Your task to perform on an android device: turn notification dots off Image 0: 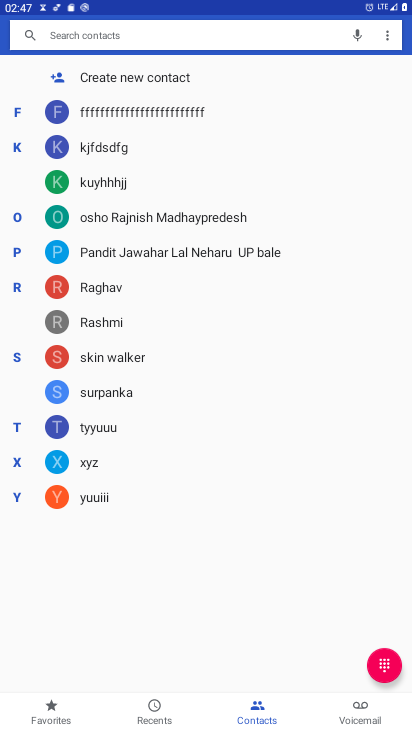
Step 0: press home button
Your task to perform on an android device: turn notification dots off Image 1: 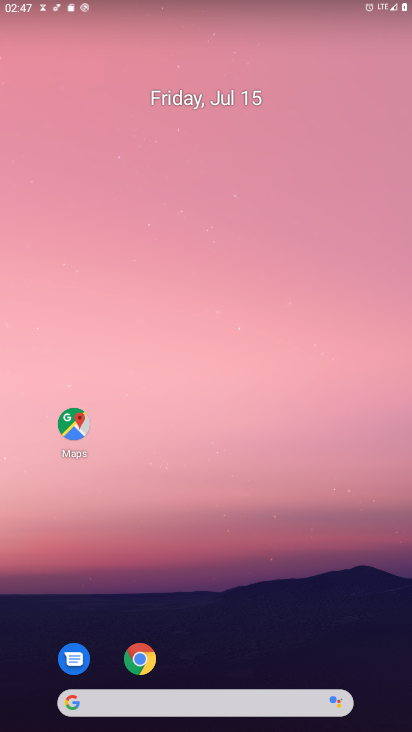
Step 1: drag from (233, 518) to (231, 270)
Your task to perform on an android device: turn notification dots off Image 2: 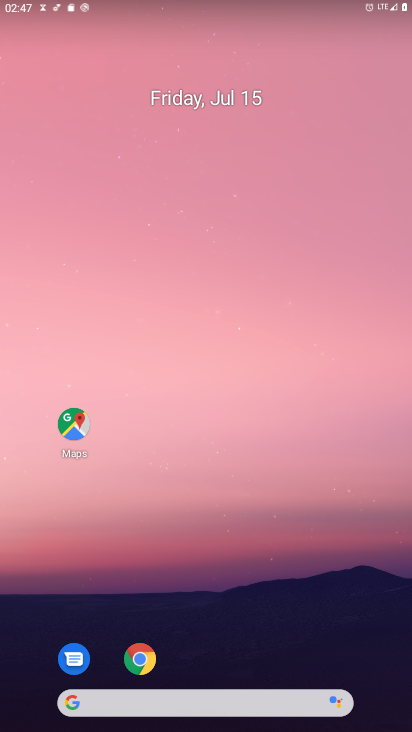
Step 2: drag from (209, 636) to (257, 111)
Your task to perform on an android device: turn notification dots off Image 3: 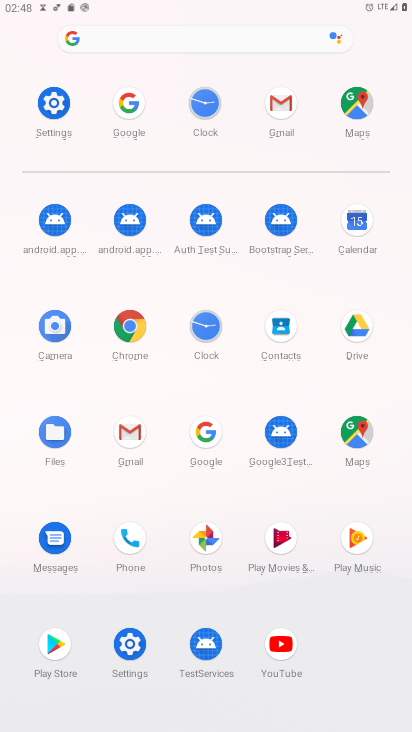
Step 3: click (58, 99)
Your task to perform on an android device: turn notification dots off Image 4: 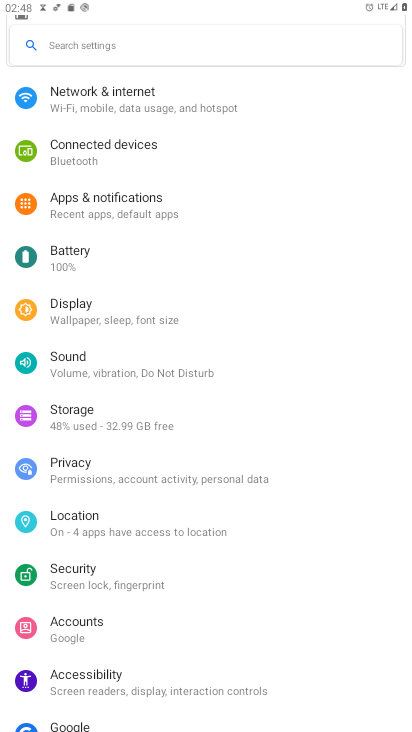
Step 4: drag from (209, 102) to (240, 685)
Your task to perform on an android device: turn notification dots off Image 5: 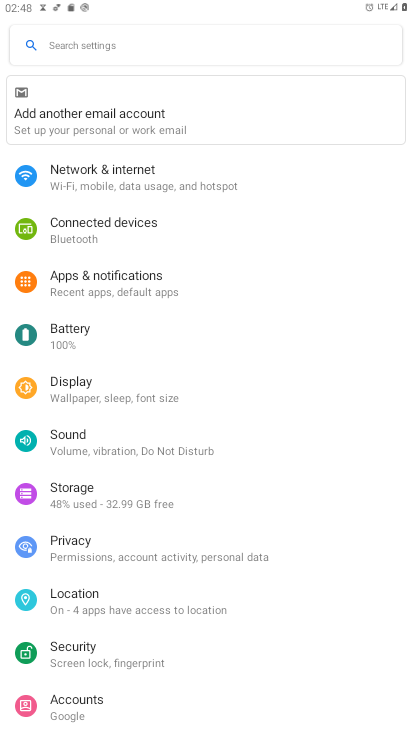
Step 5: click (245, 30)
Your task to perform on an android device: turn notification dots off Image 6: 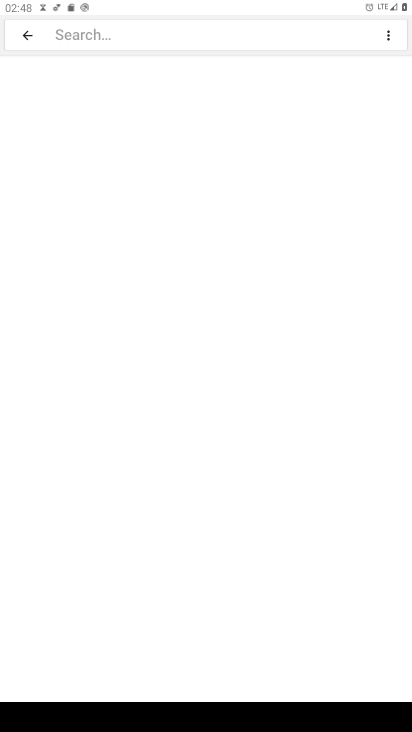
Step 6: type " notification dots  "
Your task to perform on an android device: turn notification dots off Image 7: 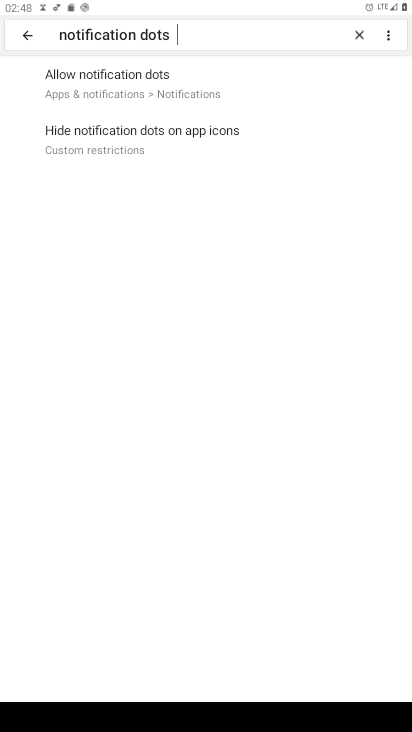
Step 7: click (64, 68)
Your task to perform on an android device: turn notification dots off Image 8: 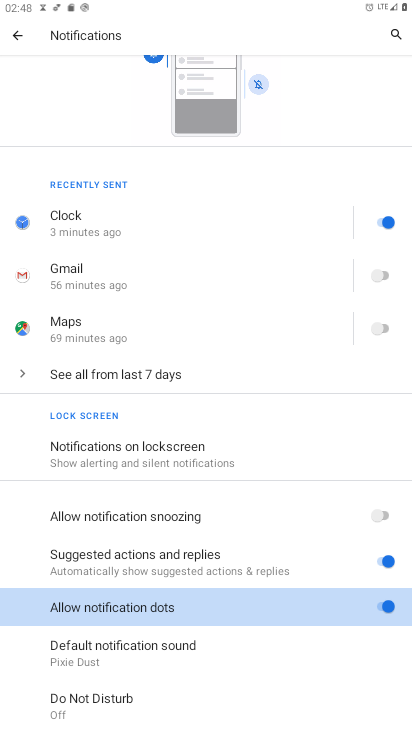
Step 8: click (388, 609)
Your task to perform on an android device: turn notification dots off Image 9: 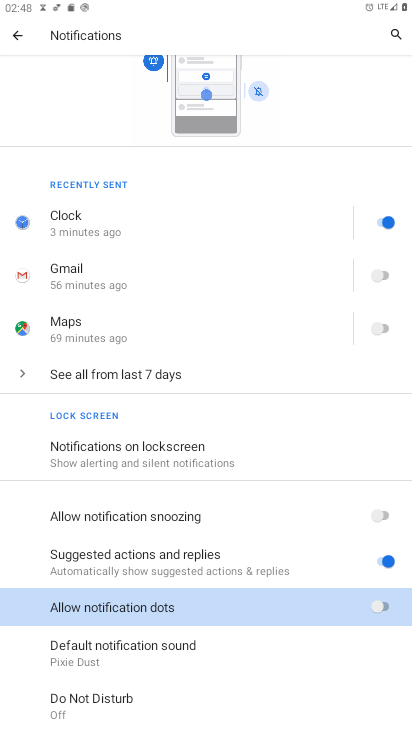
Step 9: task complete